Your task to perform on an android device: Go to privacy settings Image 0: 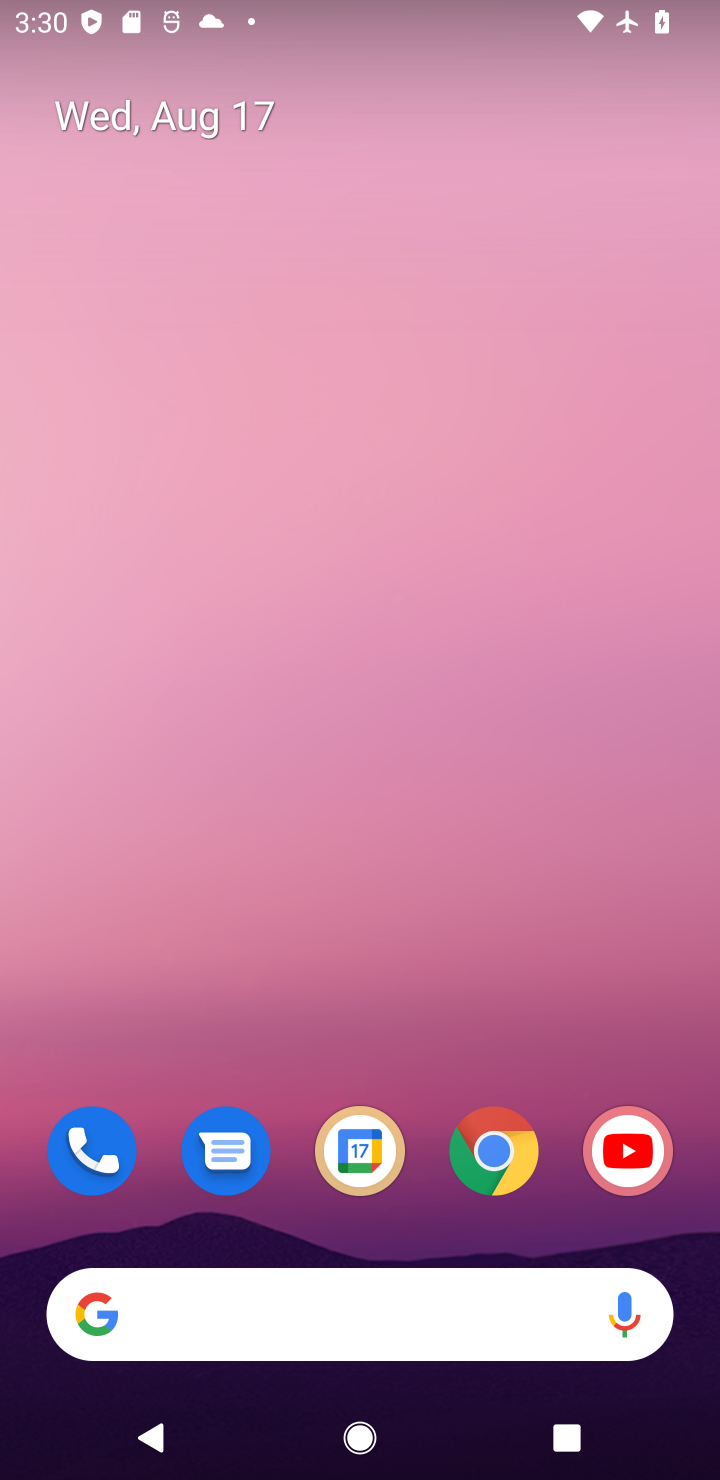
Step 0: drag from (313, 1322) to (353, 114)
Your task to perform on an android device: Go to privacy settings Image 1: 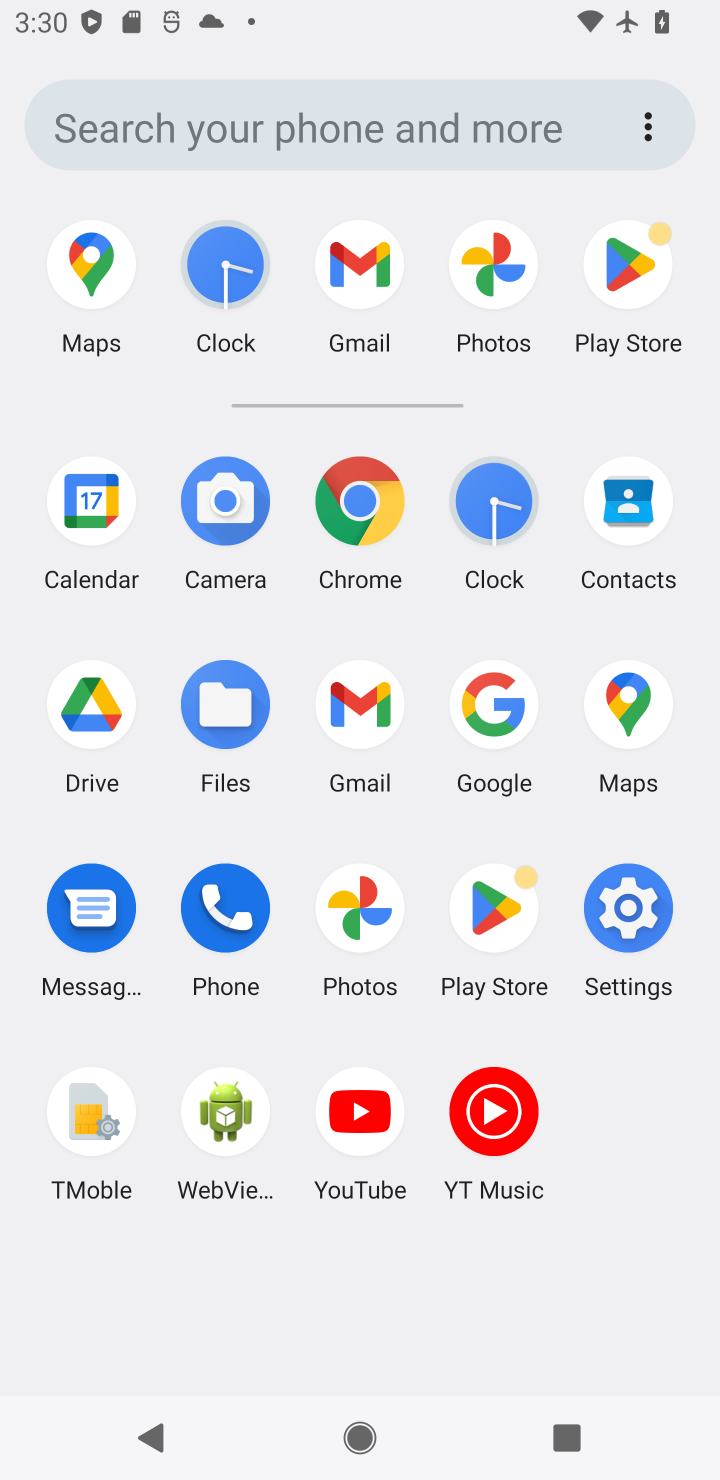
Step 1: click (648, 884)
Your task to perform on an android device: Go to privacy settings Image 2: 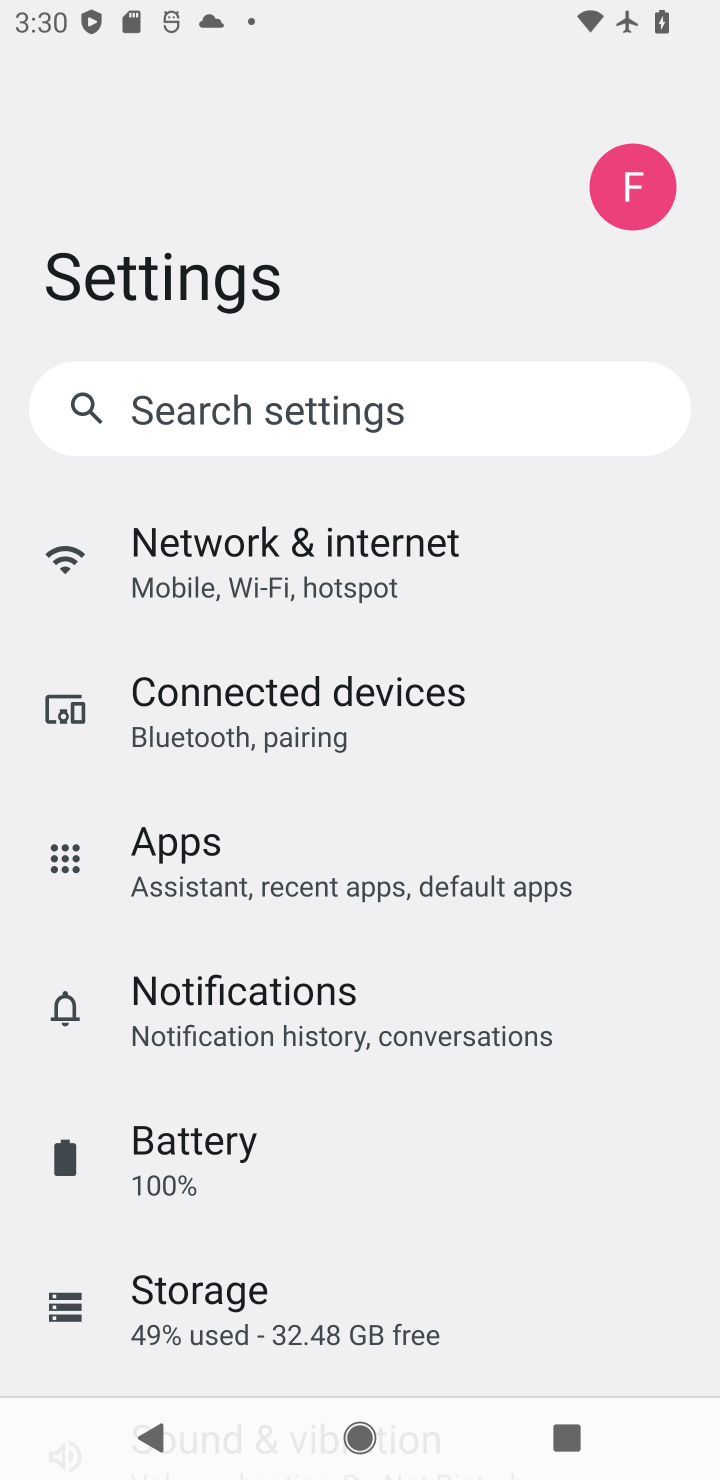
Step 2: drag from (302, 1257) to (366, 731)
Your task to perform on an android device: Go to privacy settings Image 3: 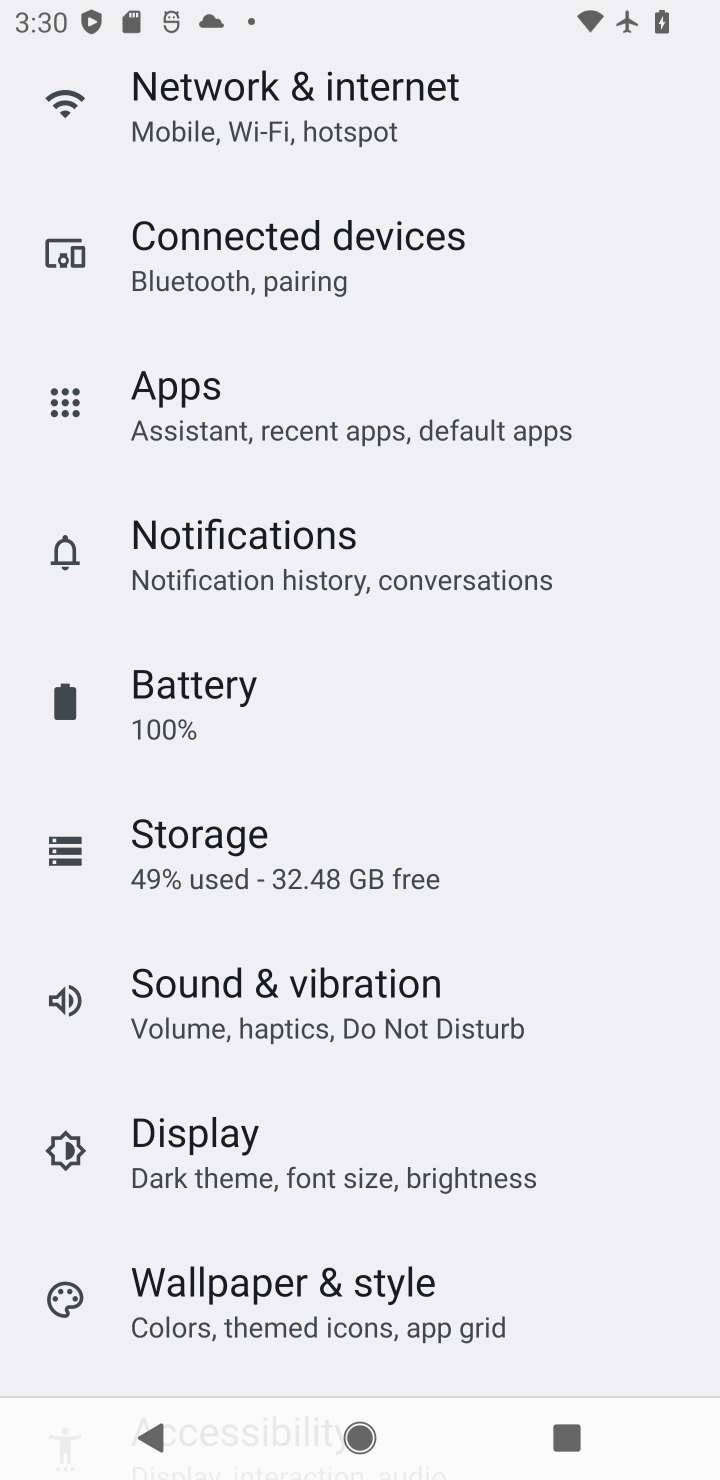
Step 3: drag from (318, 1175) to (367, 308)
Your task to perform on an android device: Go to privacy settings Image 4: 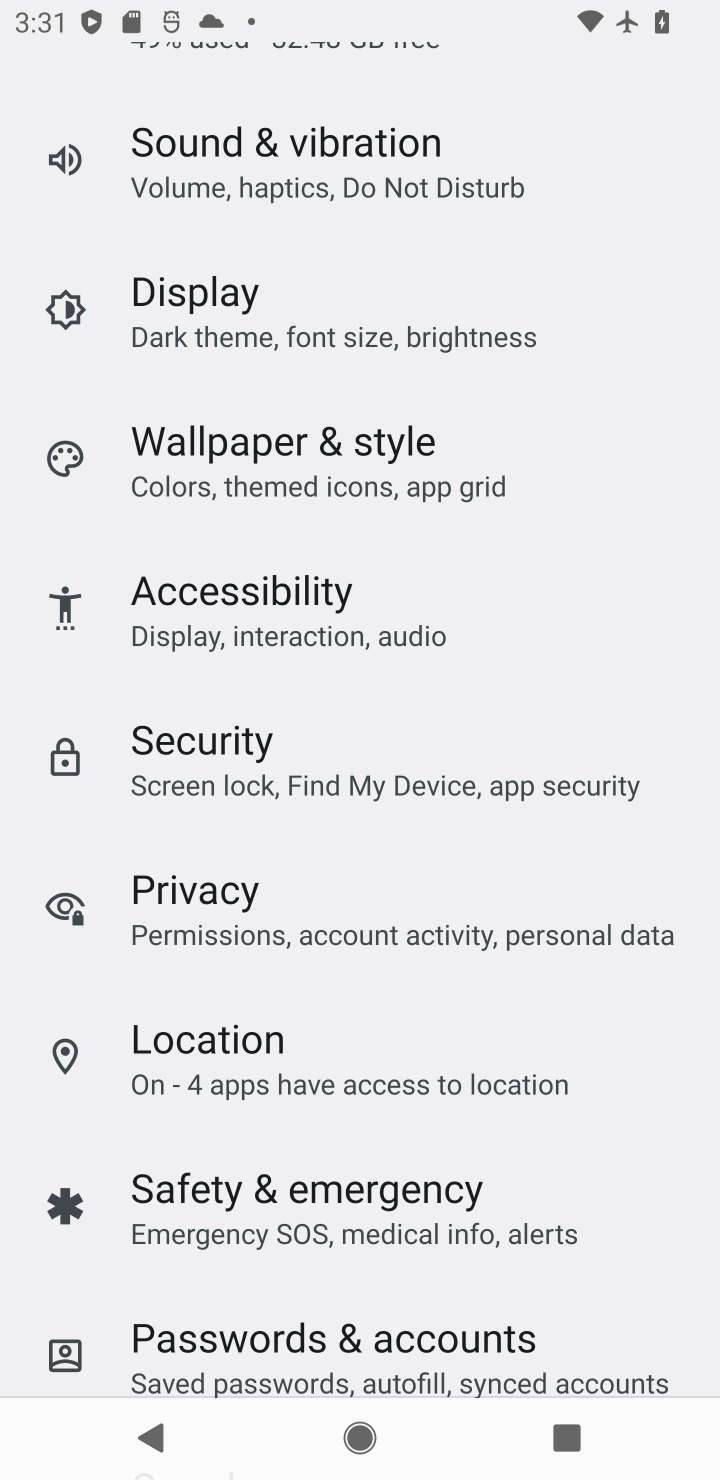
Step 4: click (246, 934)
Your task to perform on an android device: Go to privacy settings Image 5: 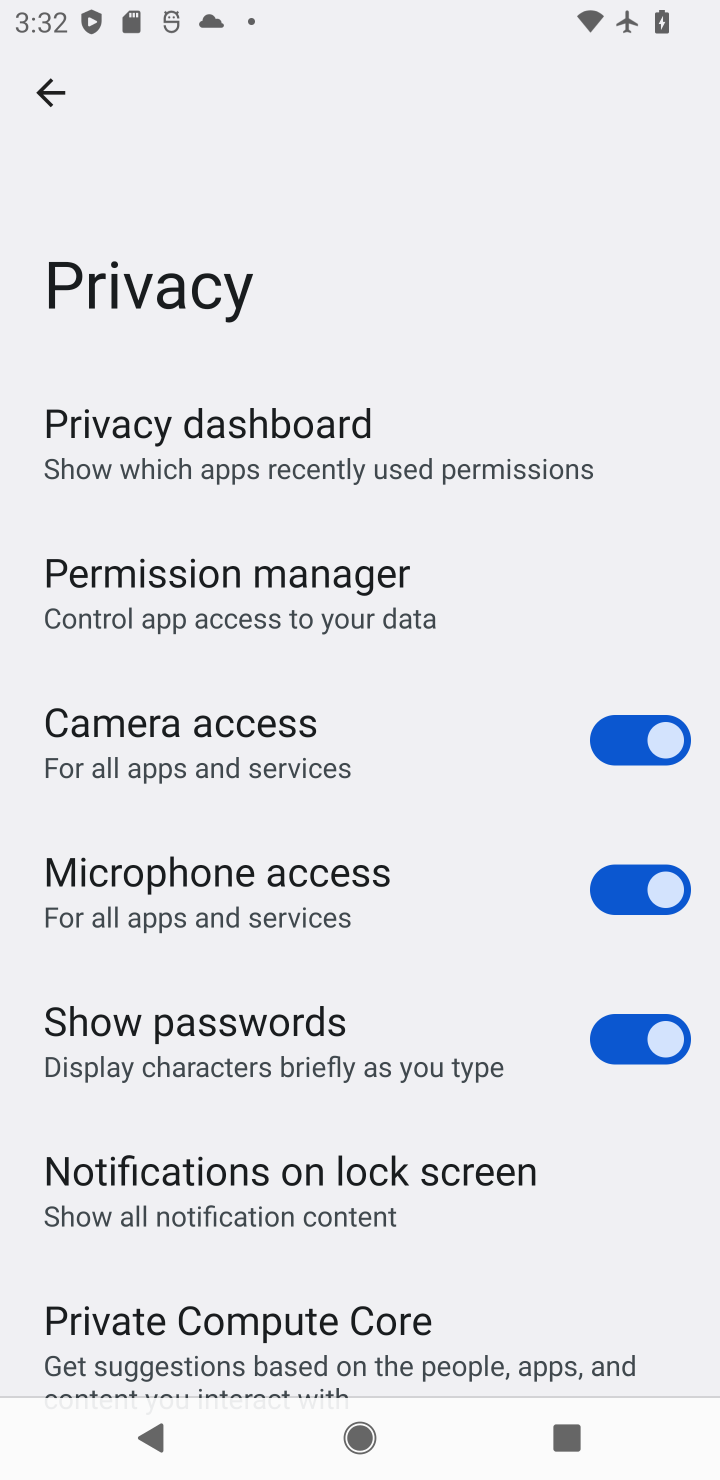
Step 5: task complete